Your task to perform on an android device: Open Android settings Image 0: 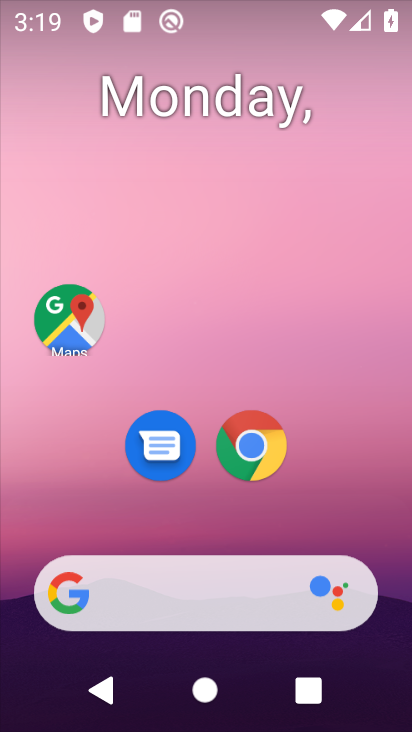
Step 0: drag from (183, 557) to (265, 19)
Your task to perform on an android device: Open Android settings Image 1: 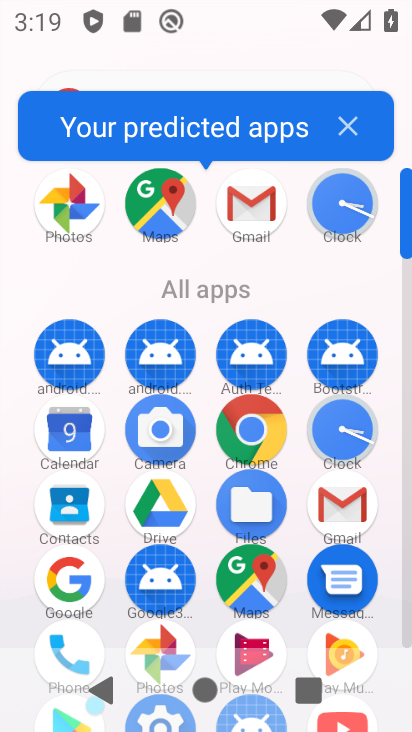
Step 1: drag from (183, 711) to (245, 489)
Your task to perform on an android device: Open Android settings Image 2: 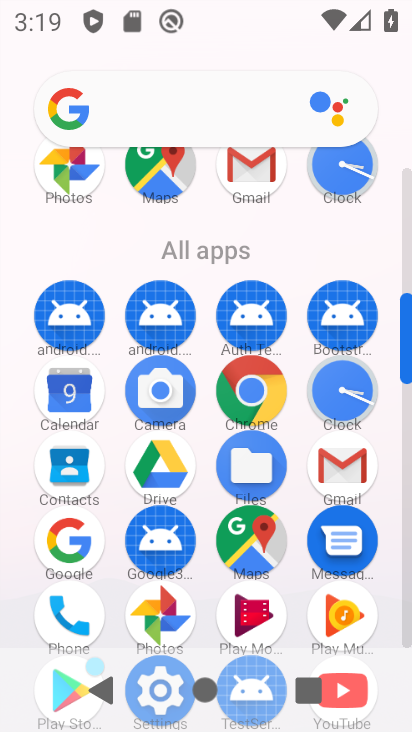
Step 2: click (158, 680)
Your task to perform on an android device: Open Android settings Image 3: 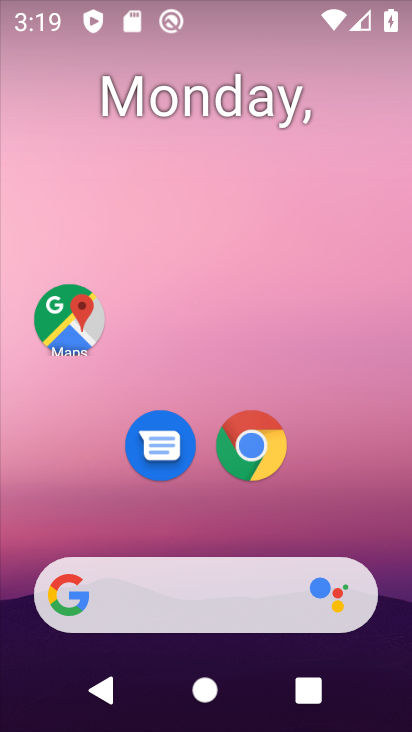
Step 3: drag from (185, 629) to (260, 361)
Your task to perform on an android device: Open Android settings Image 4: 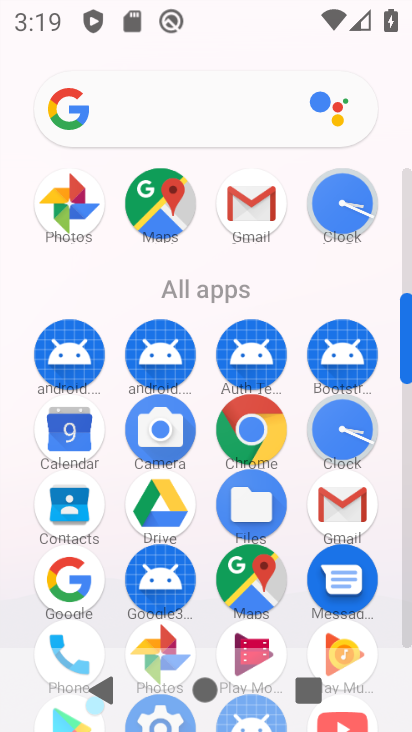
Step 4: drag from (248, 559) to (302, 342)
Your task to perform on an android device: Open Android settings Image 5: 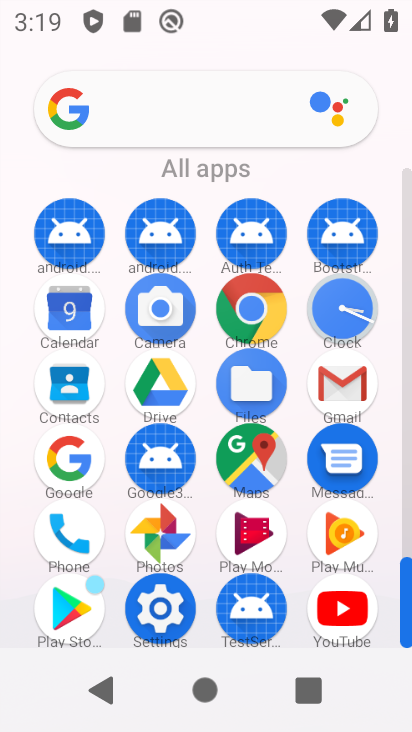
Step 5: click (164, 612)
Your task to perform on an android device: Open Android settings Image 6: 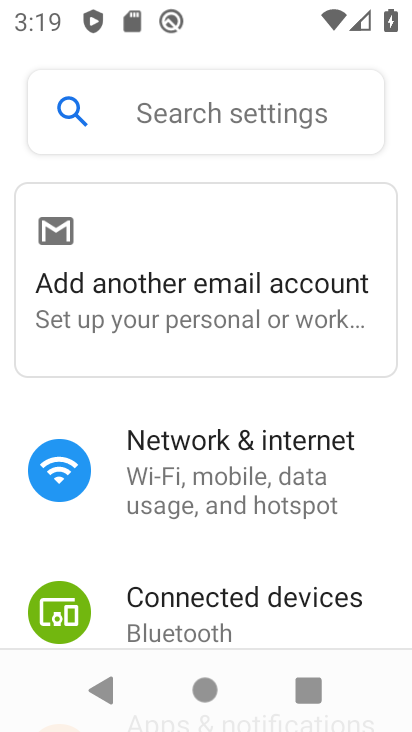
Step 6: task complete